Your task to perform on an android device: Is it going to rain this weekend? Image 0: 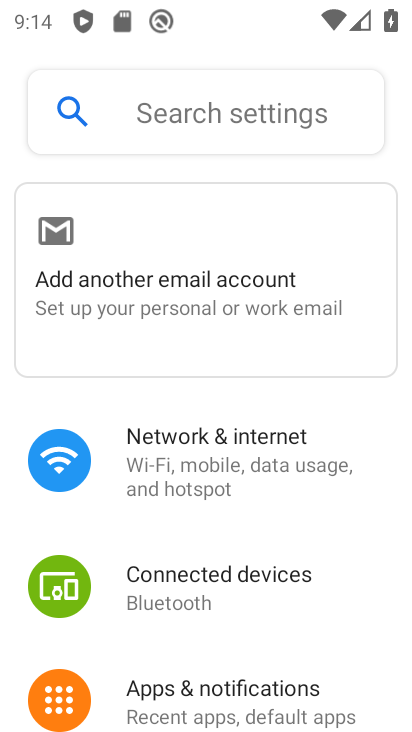
Step 0: press home button
Your task to perform on an android device: Is it going to rain this weekend? Image 1: 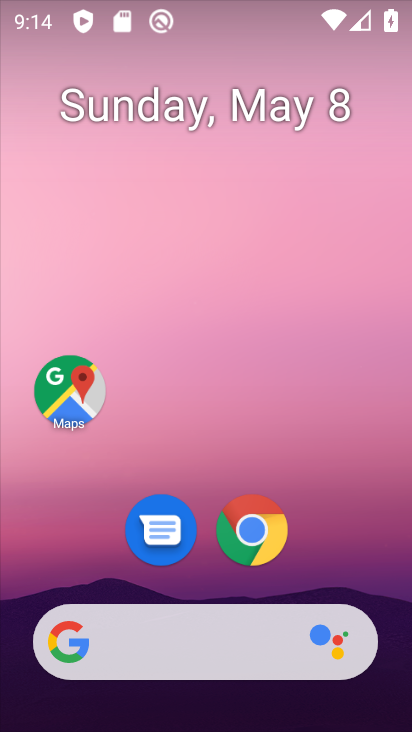
Step 1: drag from (148, 559) to (206, 215)
Your task to perform on an android device: Is it going to rain this weekend? Image 2: 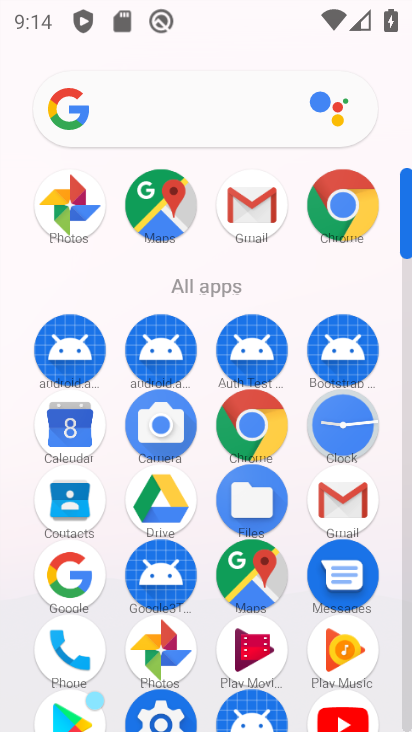
Step 2: click (69, 592)
Your task to perform on an android device: Is it going to rain this weekend? Image 3: 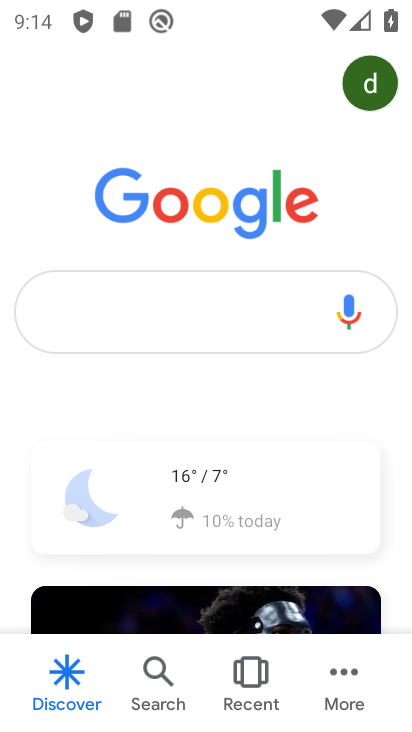
Step 3: click (84, 309)
Your task to perform on an android device: Is it going to rain this weekend? Image 4: 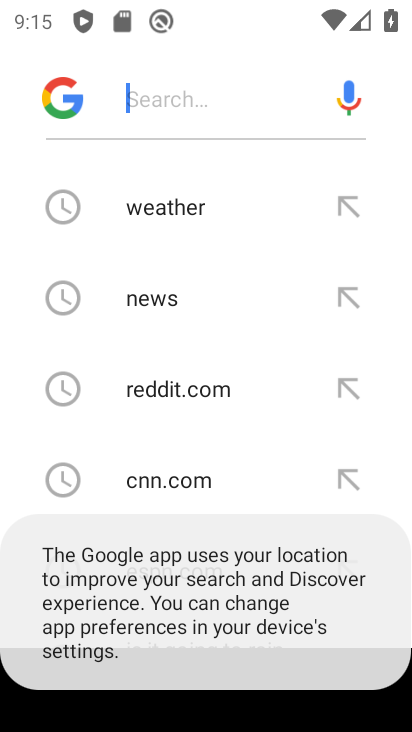
Step 4: drag from (116, 491) to (159, 213)
Your task to perform on an android device: Is it going to rain this weekend? Image 5: 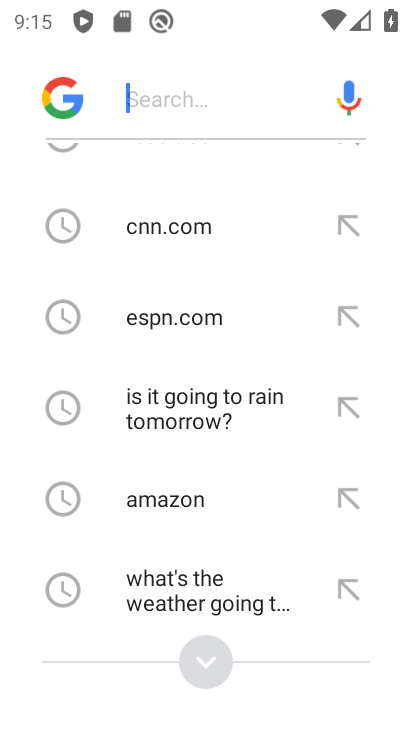
Step 5: drag from (91, 548) to (95, 321)
Your task to perform on an android device: Is it going to rain this weekend? Image 6: 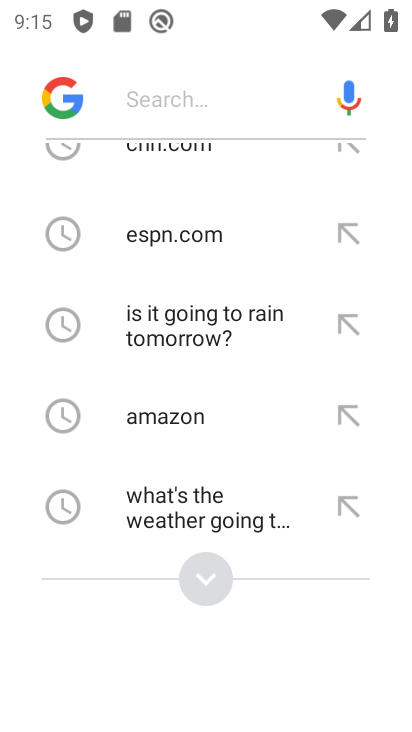
Step 6: click (198, 581)
Your task to perform on an android device: Is it going to rain this weekend? Image 7: 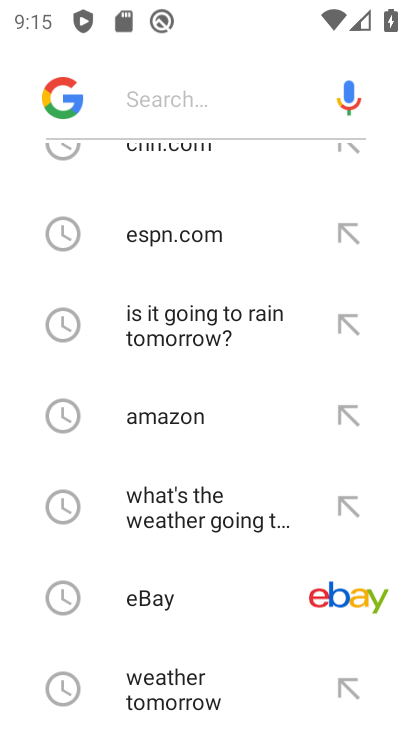
Step 7: drag from (146, 679) to (145, 363)
Your task to perform on an android device: Is it going to rain this weekend? Image 8: 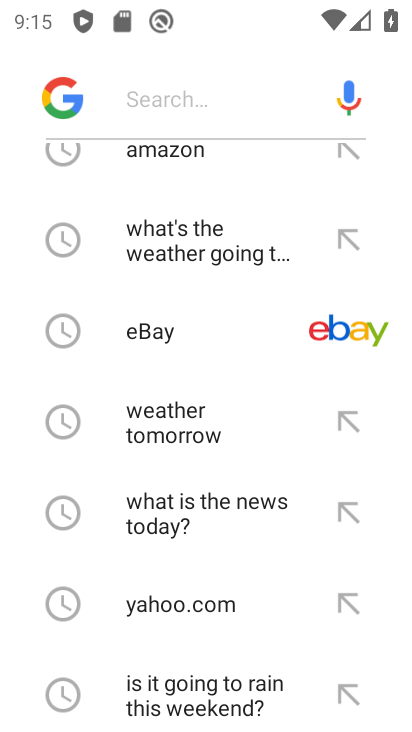
Step 8: click (148, 696)
Your task to perform on an android device: Is it going to rain this weekend? Image 9: 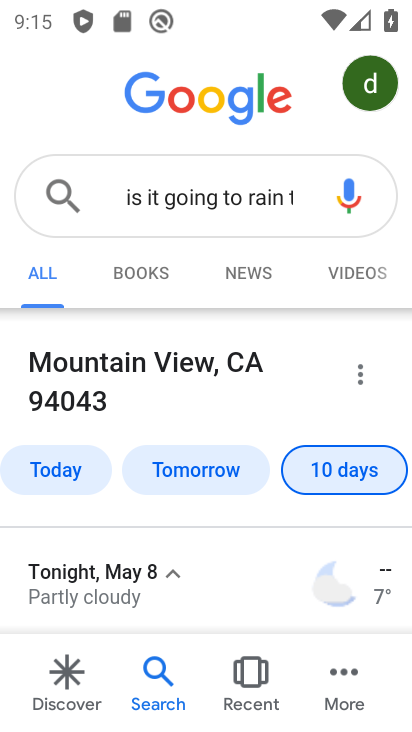
Step 9: task complete